Your task to perform on an android device: toggle sleep mode Image 0: 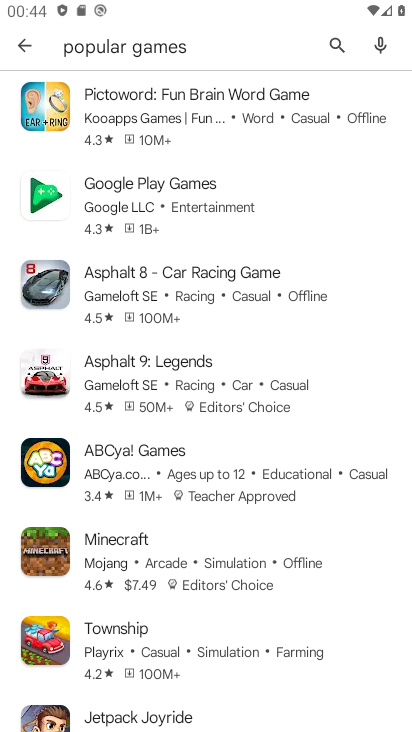
Step 0: press home button
Your task to perform on an android device: toggle sleep mode Image 1: 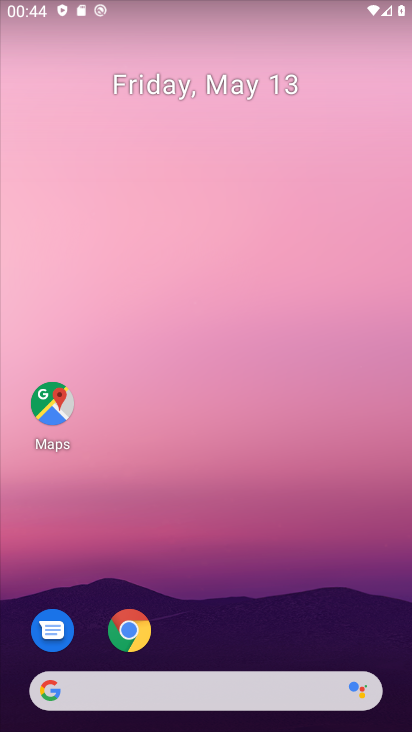
Step 1: drag from (152, 714) to (214, 279)
Your task to perform on an android device: toggle sleep mode Image 2: 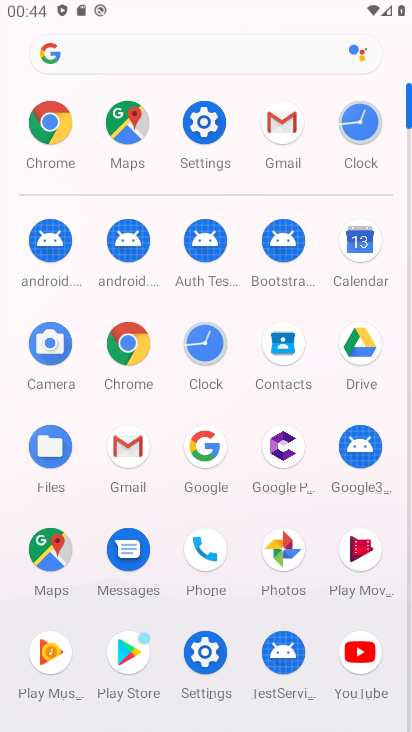
Step 2: click (216, 135)
Your task to perform on an android device: toggle sleep mode Image 3: 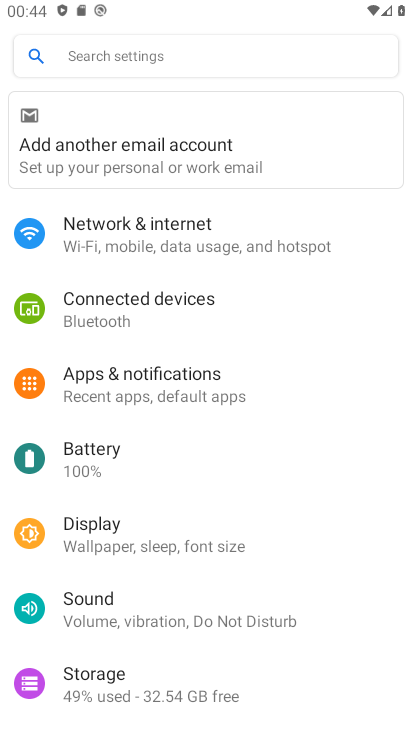
Step 3: click (136, 64)
Your task to perform on an android device: toggle sleep mode Image 4: 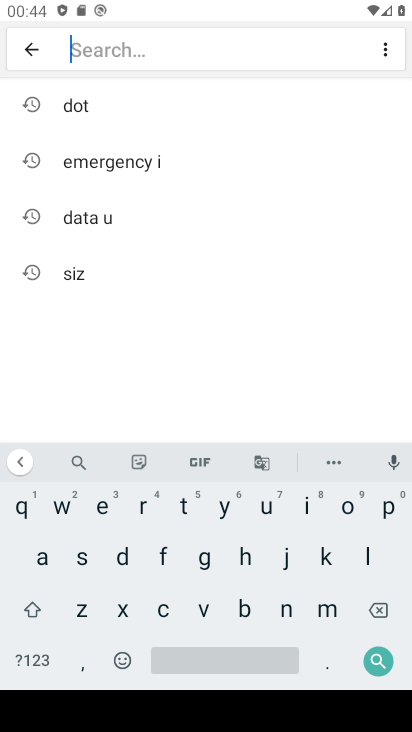
Step 4: click (82, 556)
Your task to perform on an android device: toggle sleep mode Image 5: 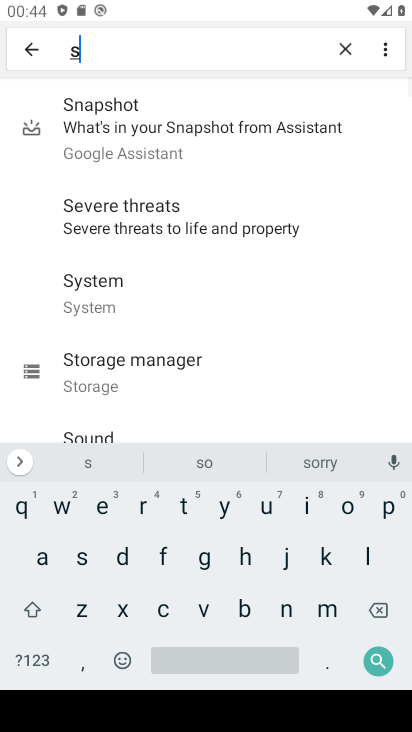
Step 5: click (369, 556)
Your task to perform on an android device: toggle sleep mode Image 6: 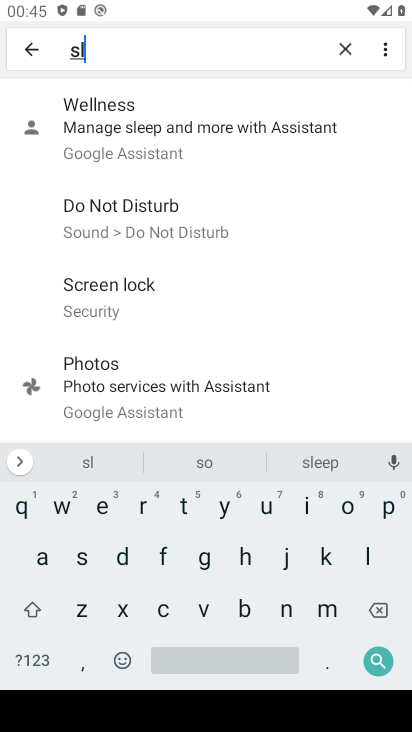
Step 6: click (193, 138)
Your task to perform on an android device: toggle sleep mode Image 7: 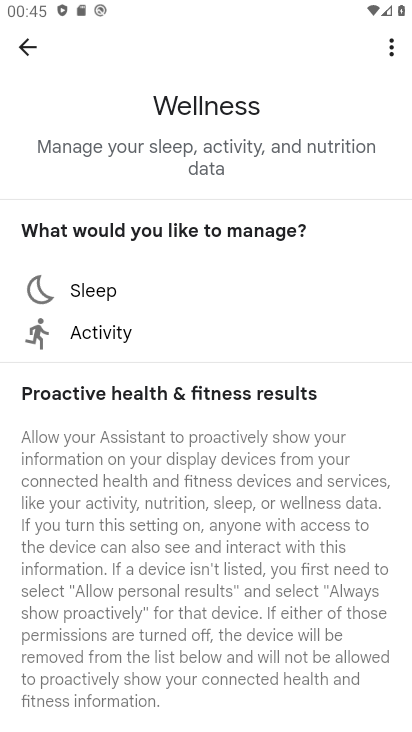
Step 7: click (90, 289)
Your task to perform on an android device: toggle sleep mode Image 8: 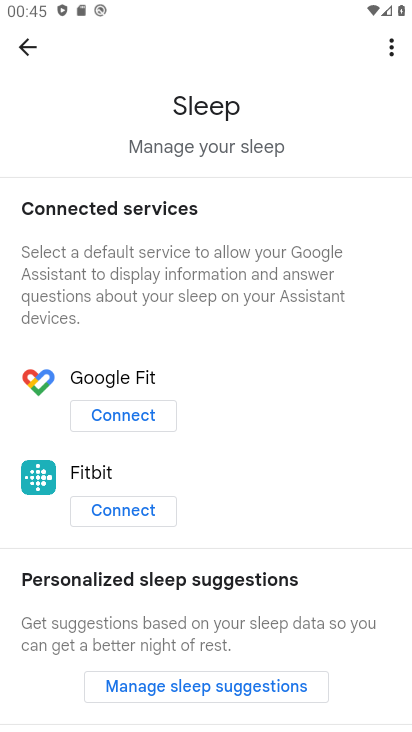
Step 8: task complete